Your task to perform on an android device: toggle wifi Image 0: 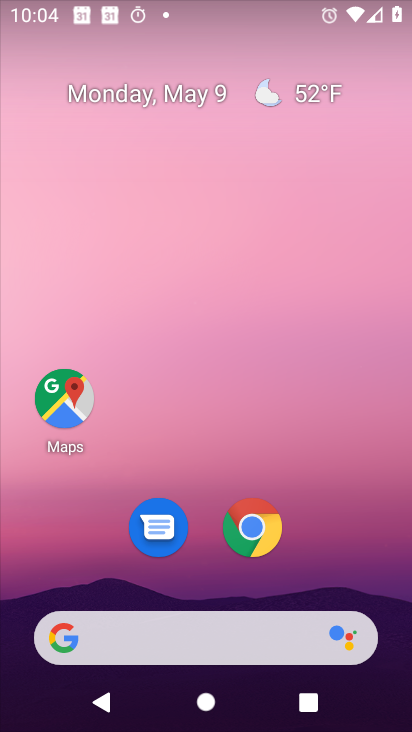
Step 0: drag from (200, 570) to (227, 78)
Your task to perform on an android device: toggle wifi Image 1: 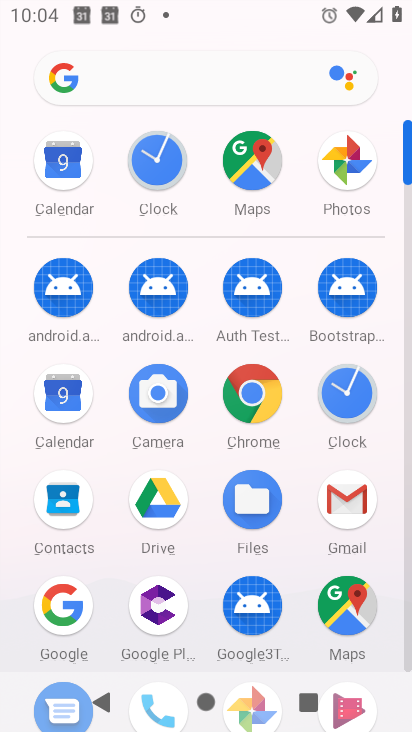
Step 1: drag from (194, 543) to (222, 90)
Your task to perform on an android device: toggle wifi Image 2: 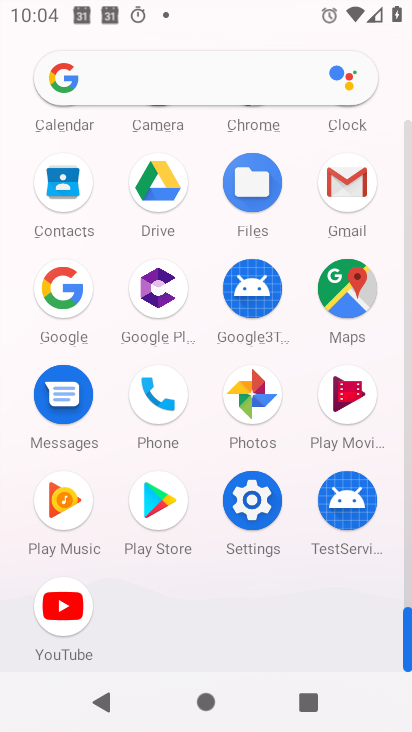
Step 2: click (252, 514)
Your task to perform on an android device: toggle wifi Image 3: 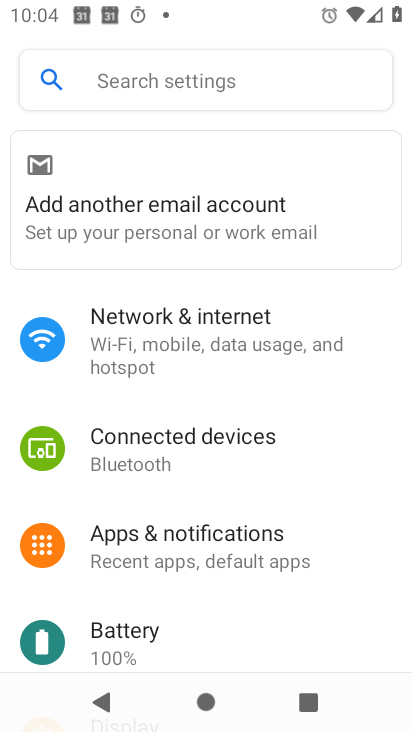
Step 3: click (182, 340)
Your task to perform on an android device: toggle wifi Image 4: 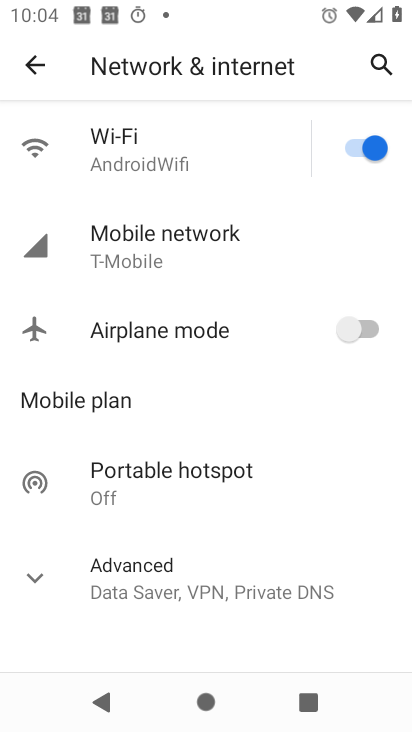
Step 4: click (368, 144)
Your task to perform on an android device: toggle wifi Image 5: 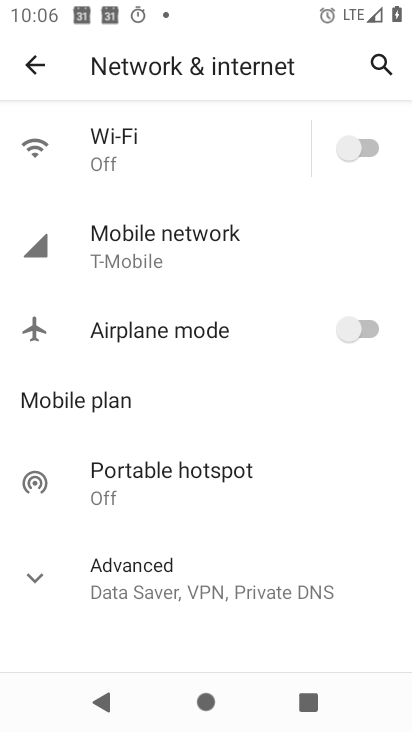
Step 5: task complete